Your task to perform on an android device: open app "Google Photos" Image 0: 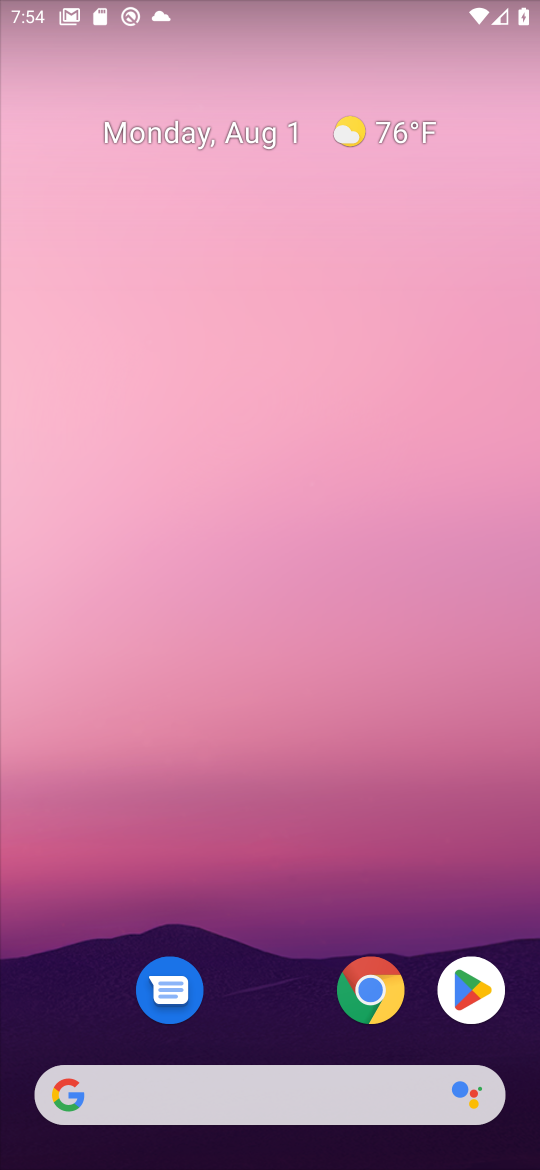
Step 0: click (490, 981)
Your task to perform on an android device: open app "Google Photos" Image 1: 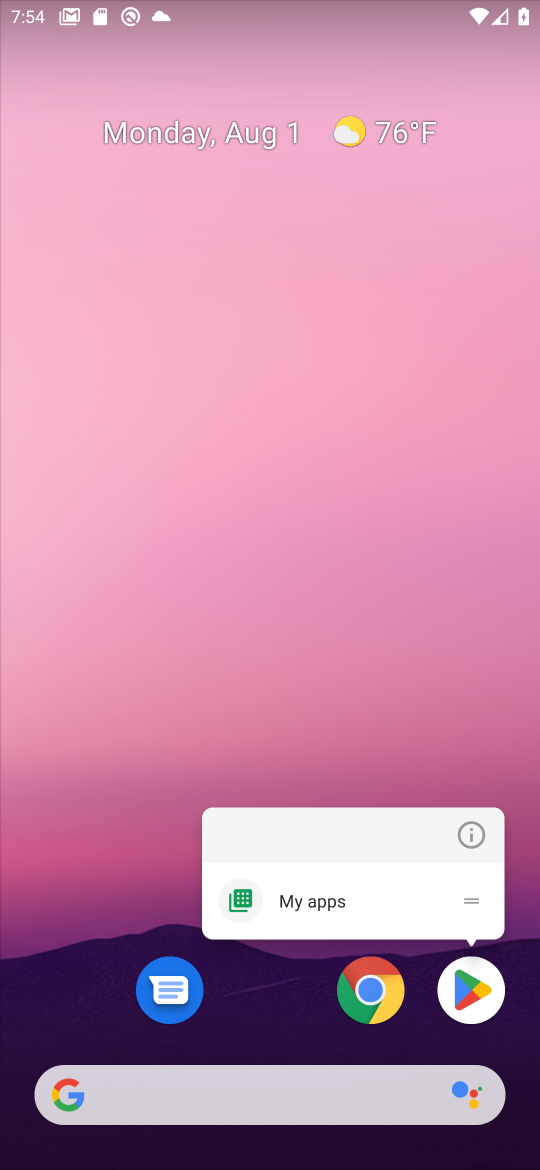
Step 1: click (457, 991)
Your task to perform on an android device: open app "Google Photos" Image 2: 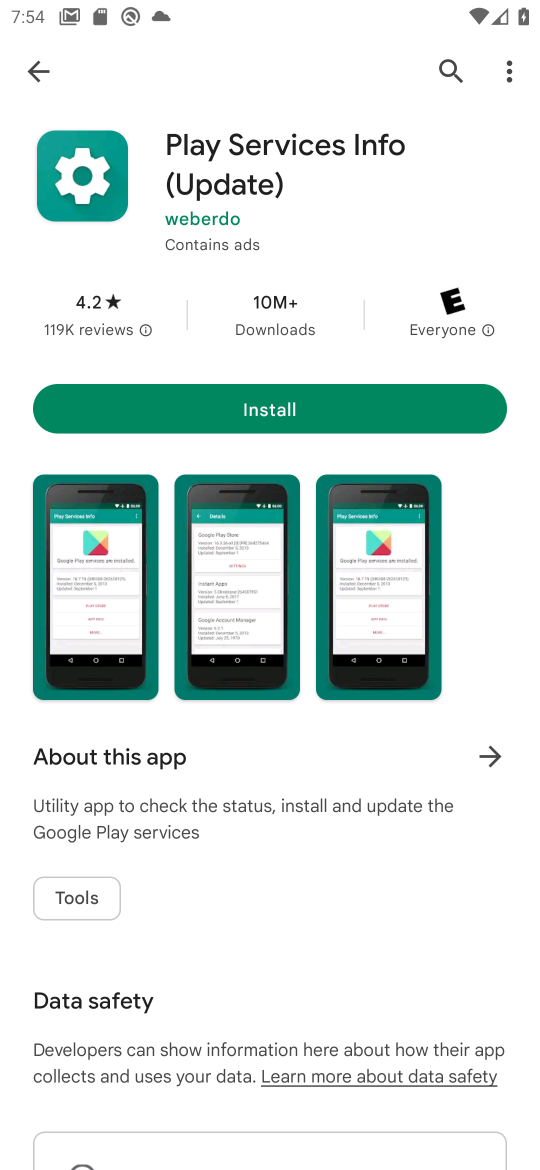
Step 2: click (436, 71)
Your task to perform on an android device: open app "Google Photos" Image 3: 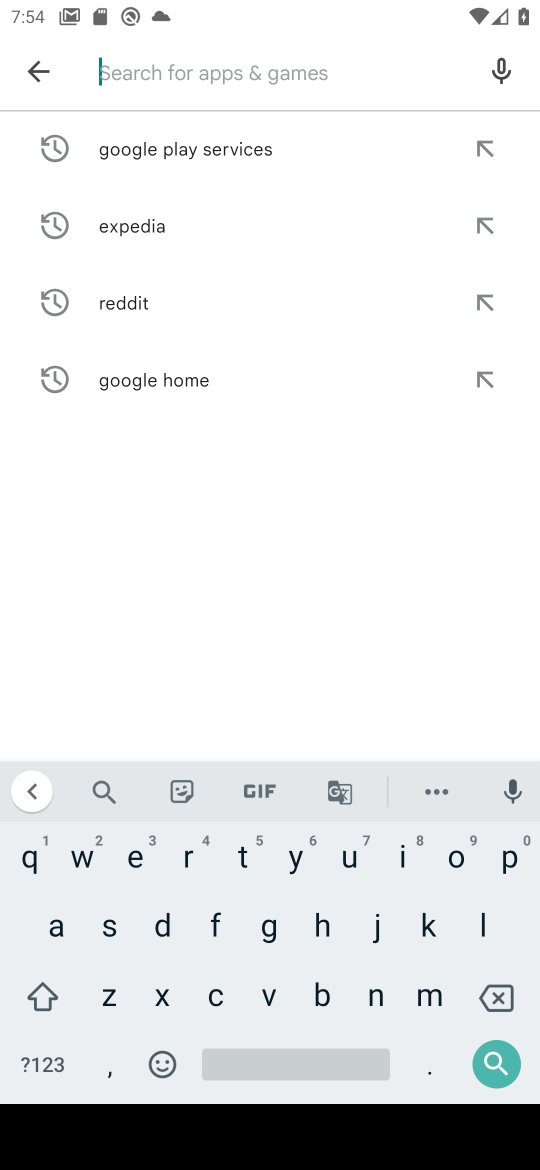
Step 3: click (510, 847)
Your task to perform on an android device: open app "Google Photos" Image 4: 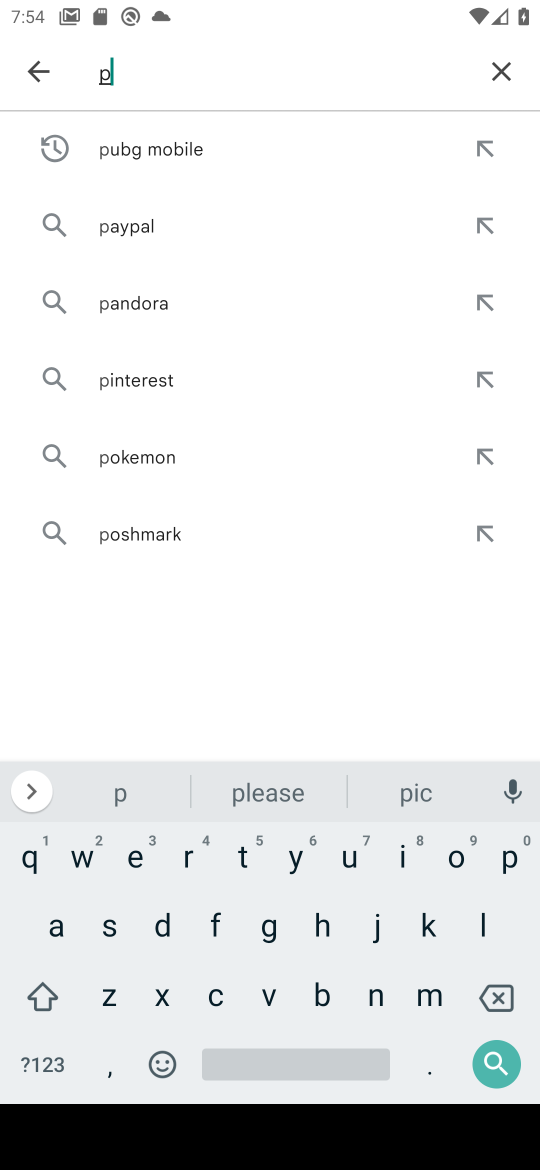
Step 4: click (320, 923)
Your task to perform on an android device: open app "Google Photos" Image 5: 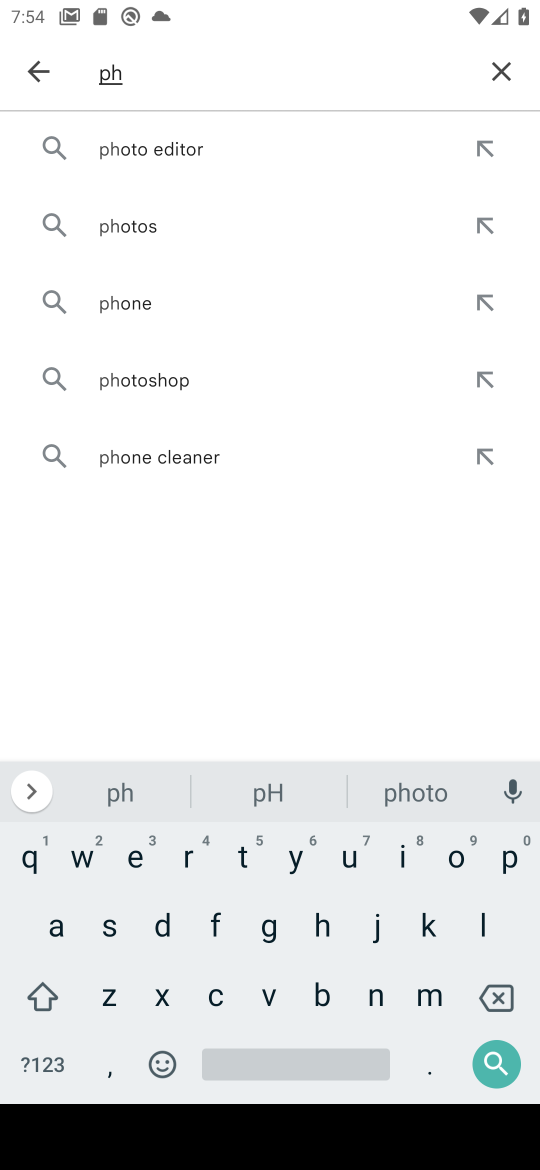
Step 5: click (443, 855)
Your task to perform on an android device: open app "Google Photos" Image 6: 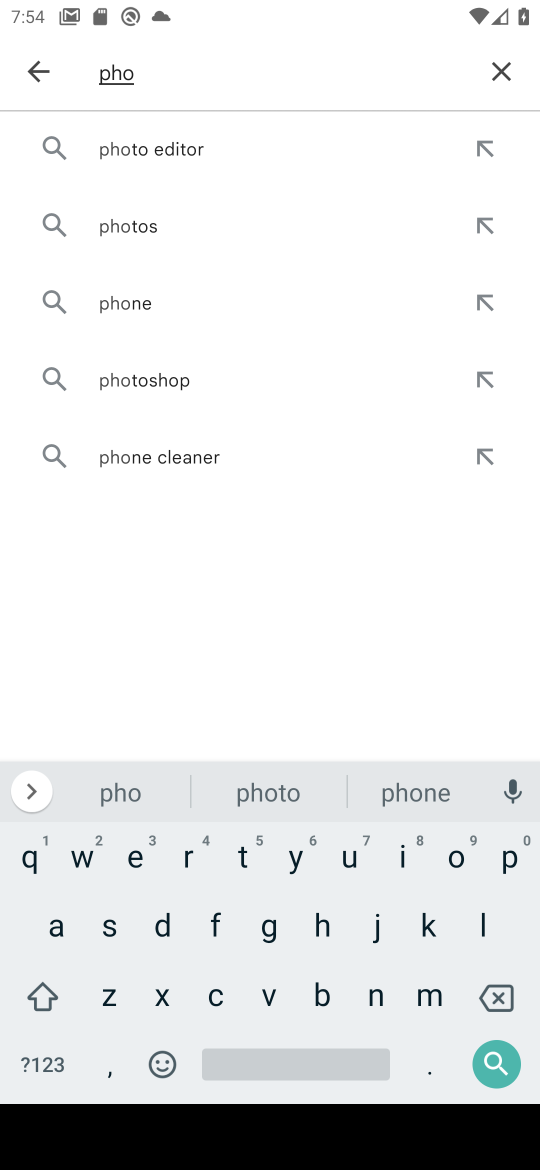
Step 6: click (236, 849)
Your task to perform on an android device: open app "Google Photos" Image 7: 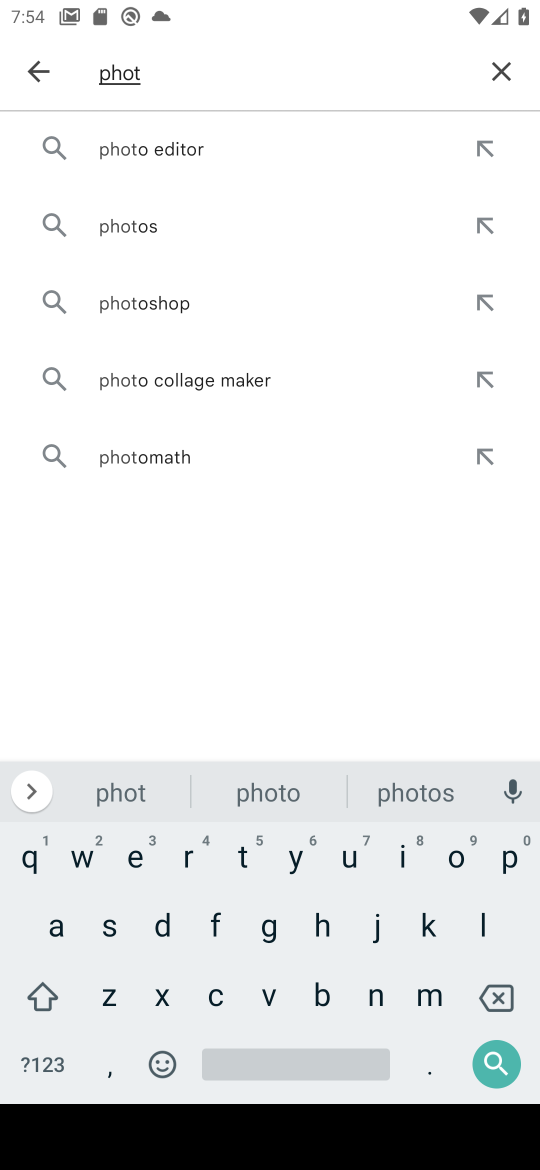
Step 7: click (265, 799)
Your task to perform on an android device: open app "Google Photos" Image 8: 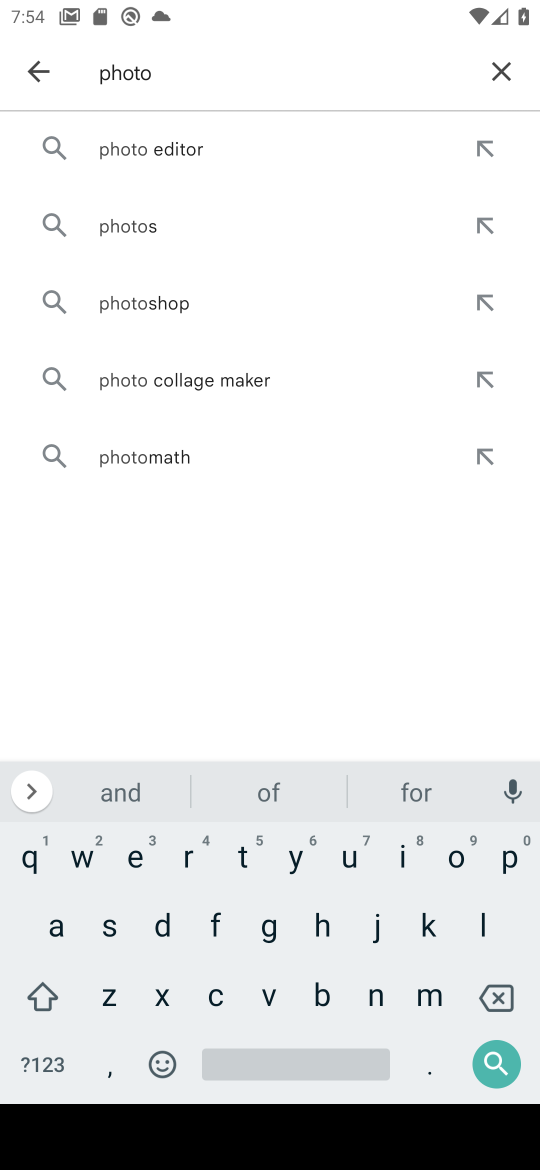
Step 8: click (487, 1059)
Your task to perform on an android device: open app "Google Photos" Image 9: 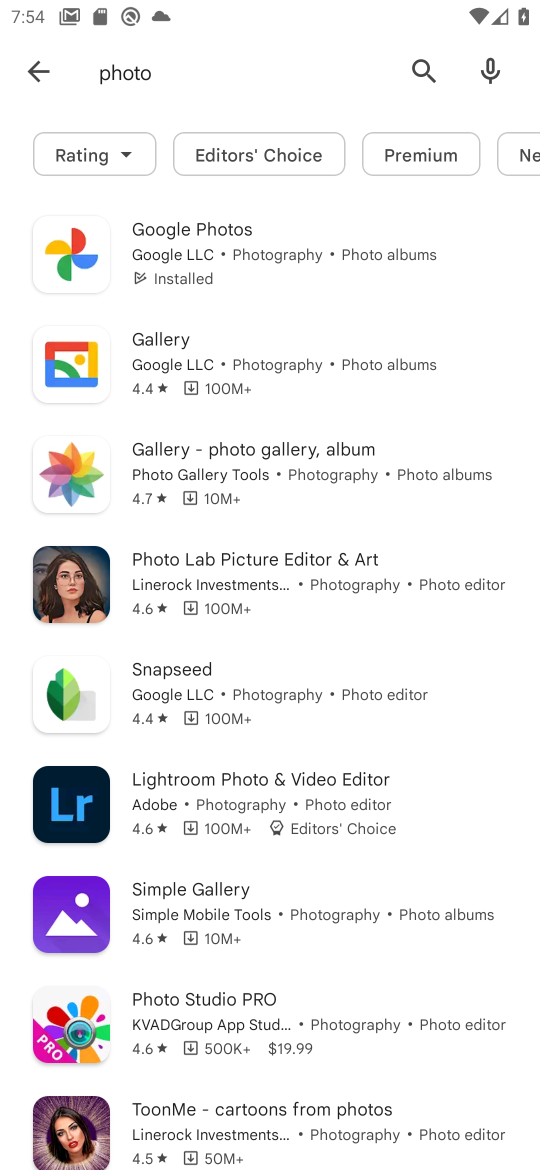
Step 9: click (197, 249)
Your task to perform on an android device: open app "Google Photos" Image 10: 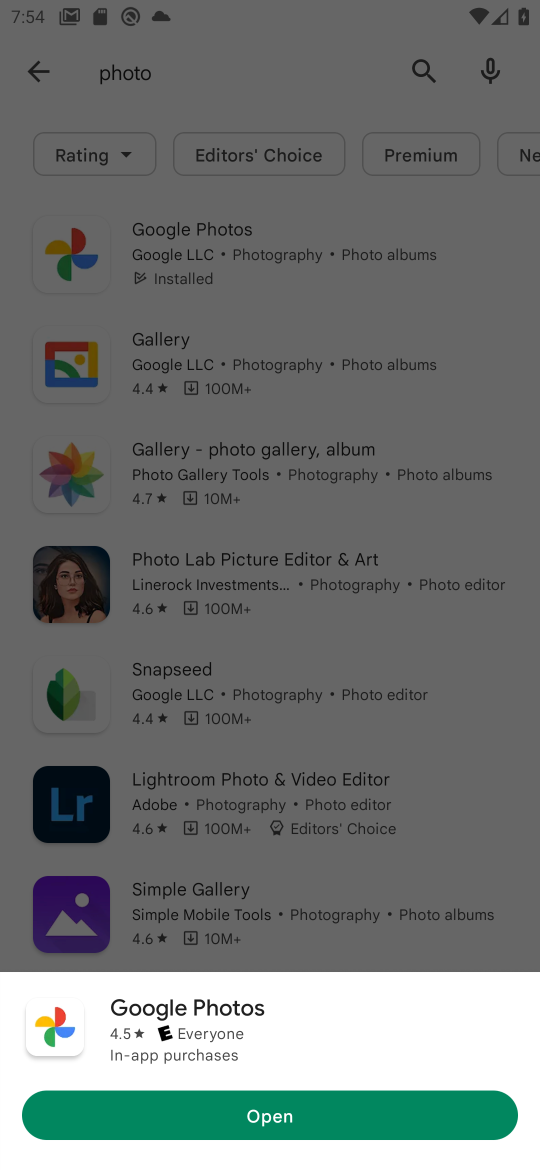
Step 10: click (197, 249)
Your task to perform on an android device: open app "Google Photos" Image 11: 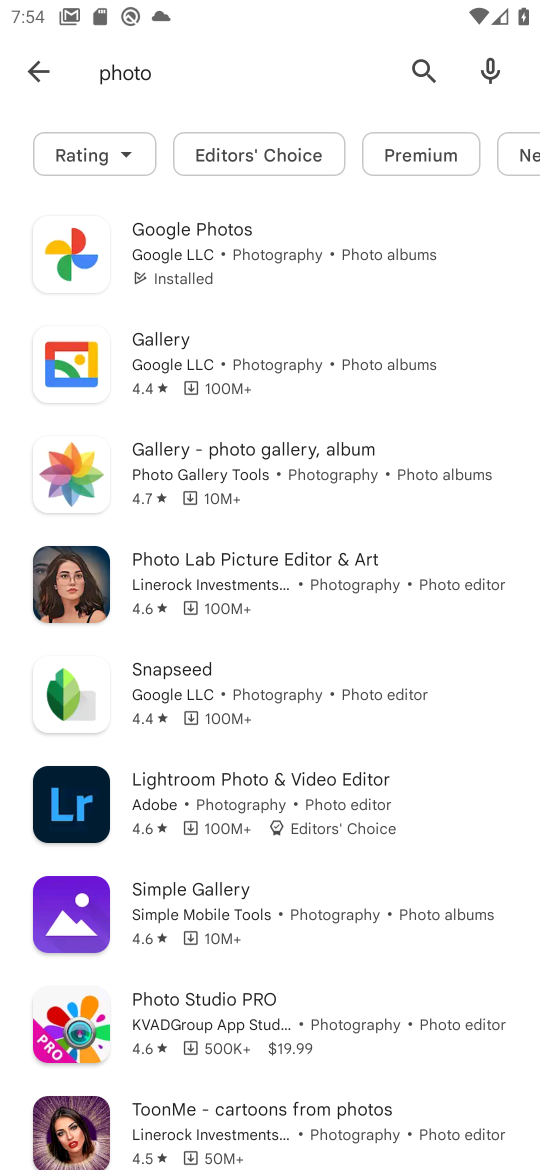
Step 11: click (88, 279)
Your task to perform on an android device: open app "Google Photos" Image 12: 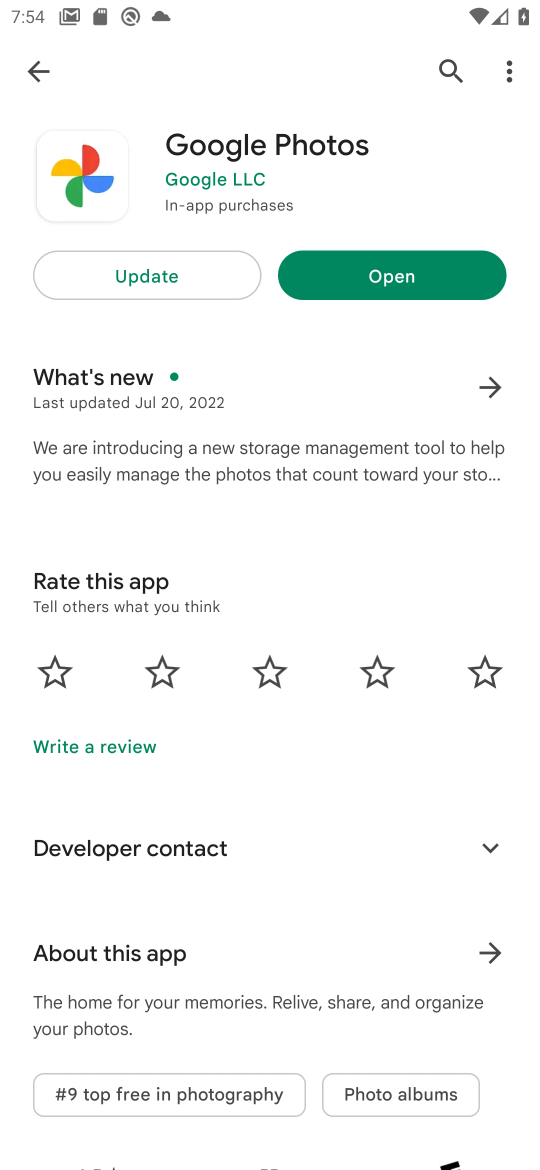
Step 12: click (324, 275)
Your task to perform on an android device: open app "Google Photos" Image 13: 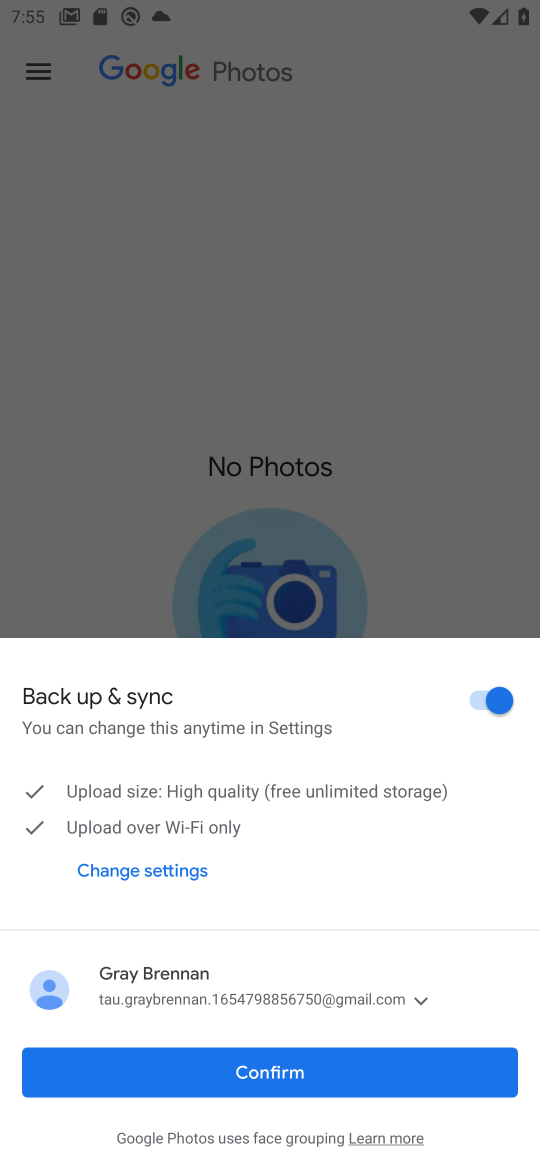
Step 13: click (319, 1074)
Your task to perform on an android device: open app "Google Photos" Image 14: 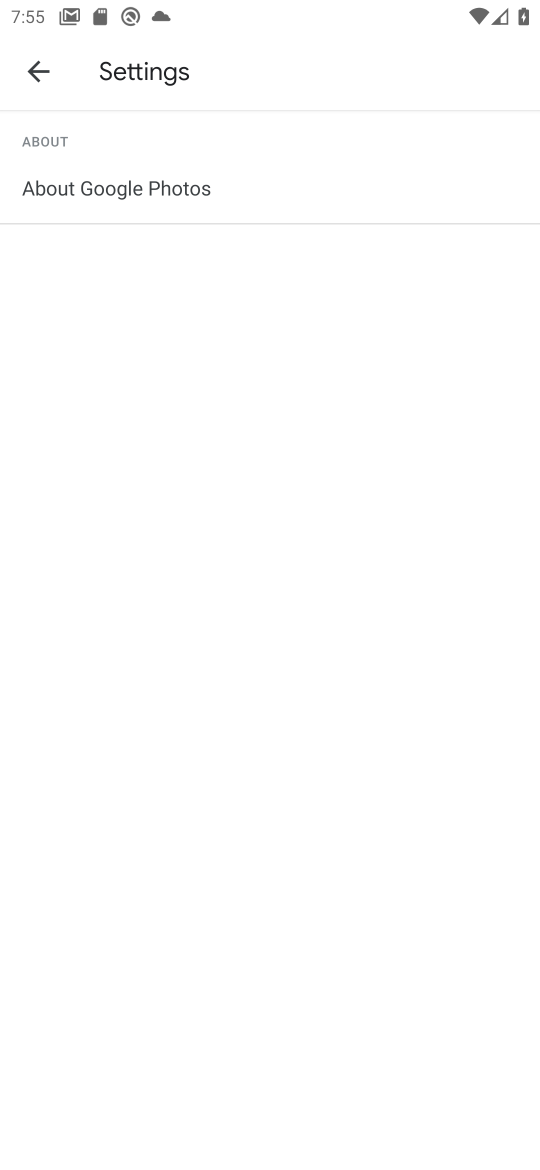
Step 14: click (43, 78)
Your task to perform on an android device: open app "Google Photos" Image 15: 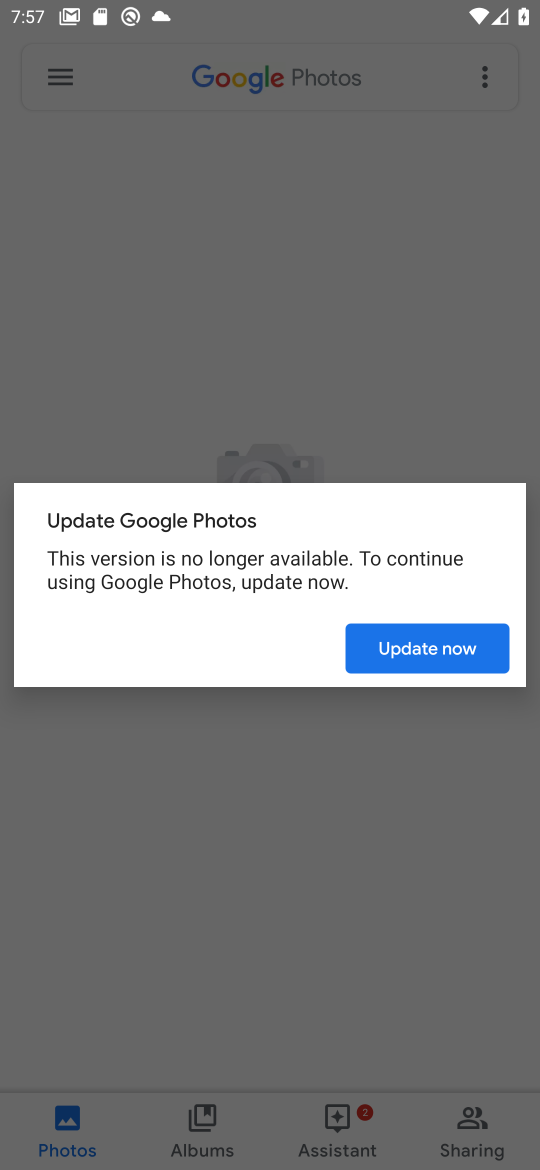
Step 15: task complete